Your task to perform on an android device: Check the news Image 0: 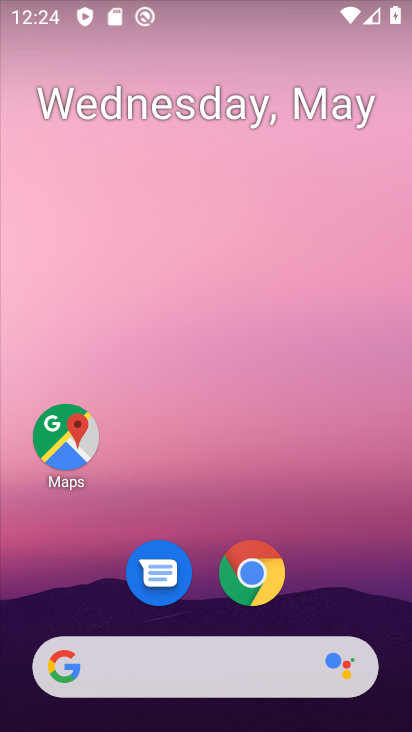
Step 0: press home button
Your task to perform on an android device: Check the news Image 1: 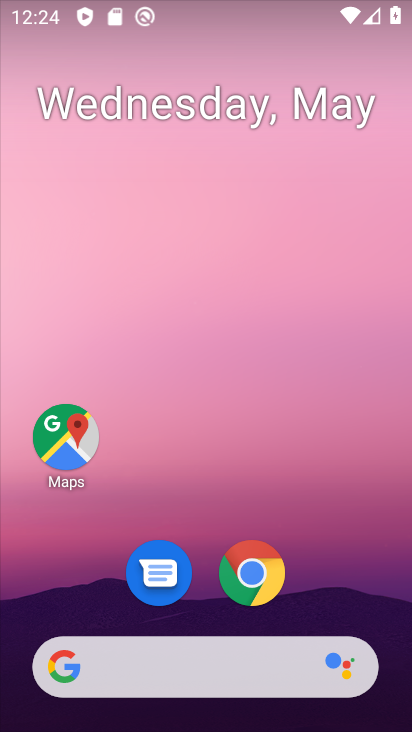
Step 1: click (244, 559)
Your task to perform on an android device: Check the news Image 2: 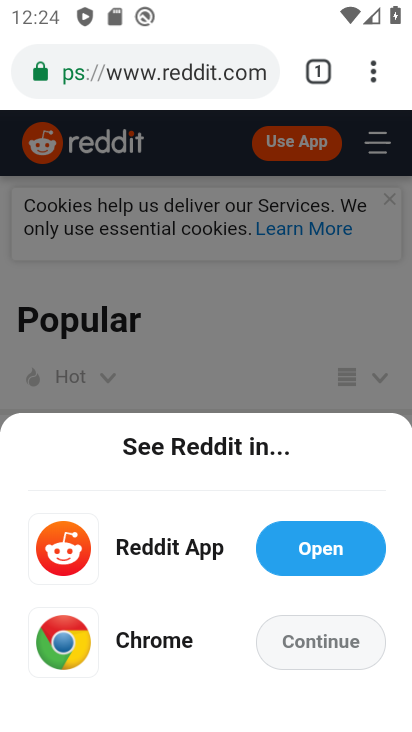
Step 2: click (205, 70)
Your task to perform on an android device: Check the news Image 3: 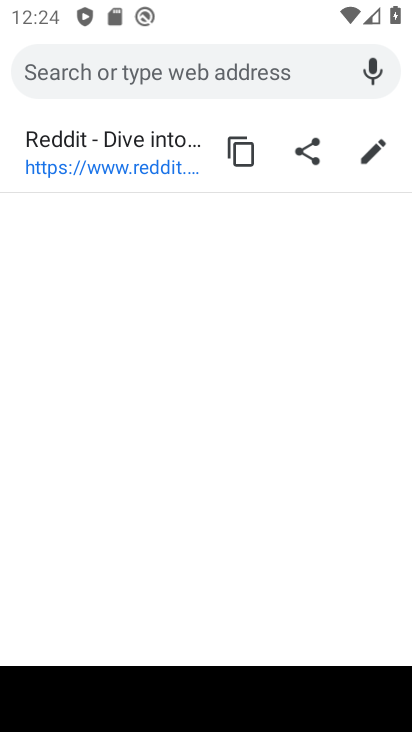
Step 3: type "news"
Your task to perform on an android device: Check the news Image 4: 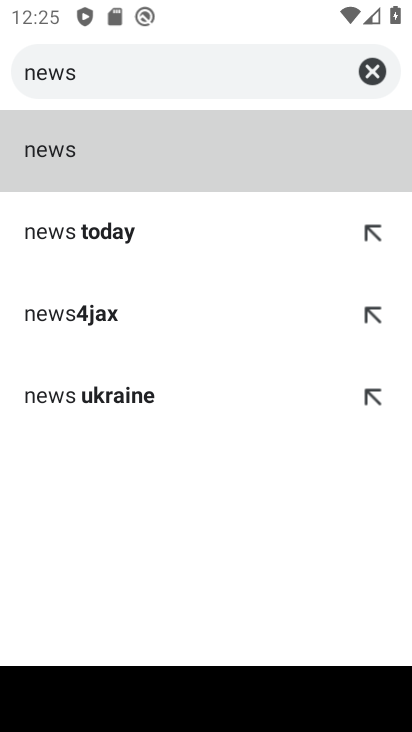
Step 4: click (167, 144)
Your task to perform on an android device: Check the news Image 5: 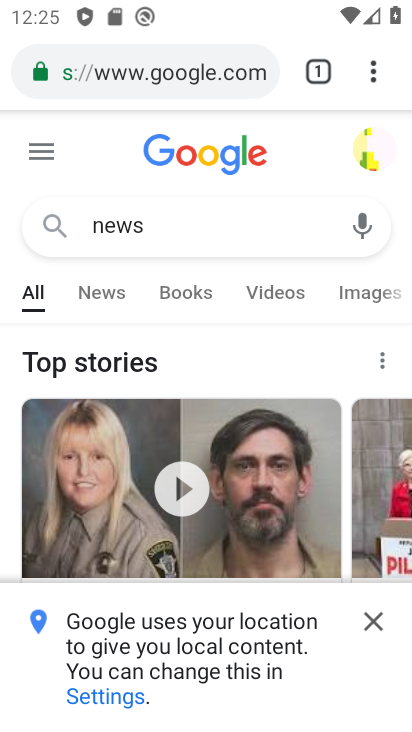
Step 5: task complete